Your task to perform on an android device: What's the weather going to be this weekend? Image 0: 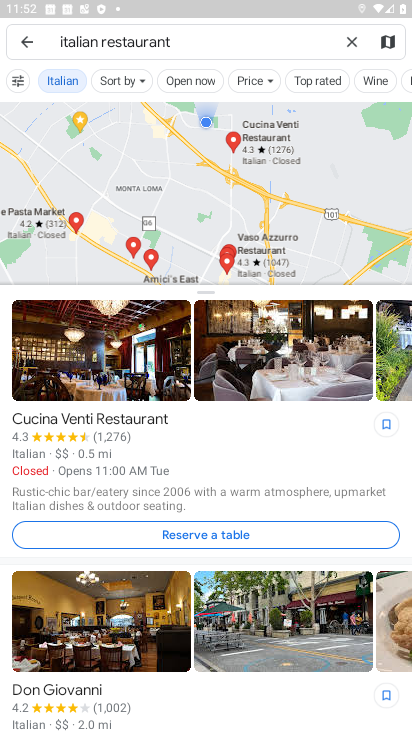
Step 0: press home button
Your task to perform on an android device: What's the weather going to be this weekend? Image 1: 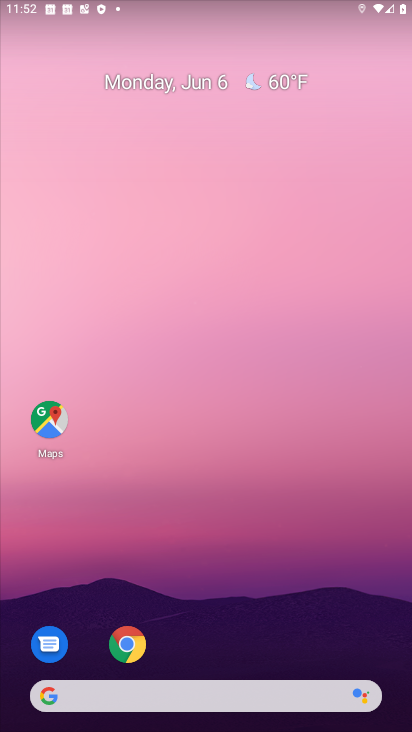
Step 1: drag from (185, 705) to (270, 27)
Your task to perform on an android device: What's the weather going to be this weekend? Image 2: 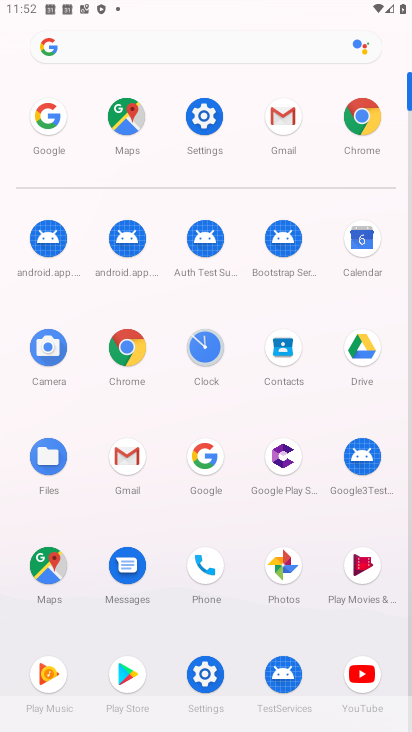
Step 2: click (210, 474)
Your task to perform on an android device: What's the weather going to be this weekend? Image 3: 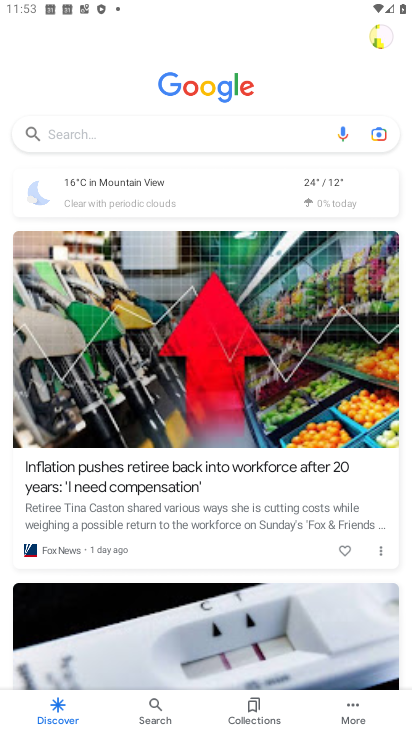
Step 3: click (214, 132)
Your task to perform on an android device: What's the weather going to be this weekend? Image 4: 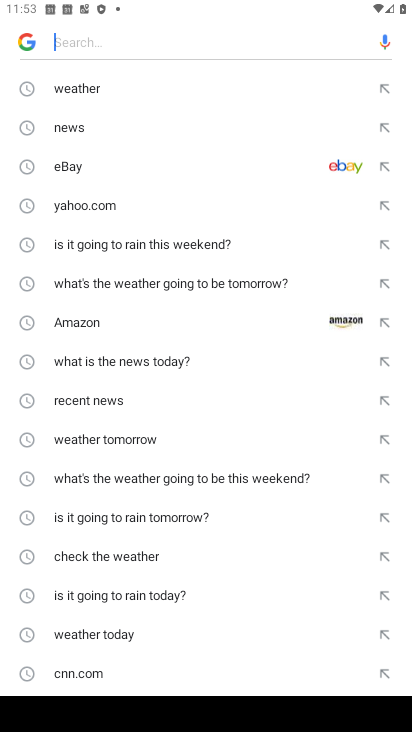
Step 4: click (154, 88)
Your task to perform on an android device: What's the weather going to be this weekend? Image 5: 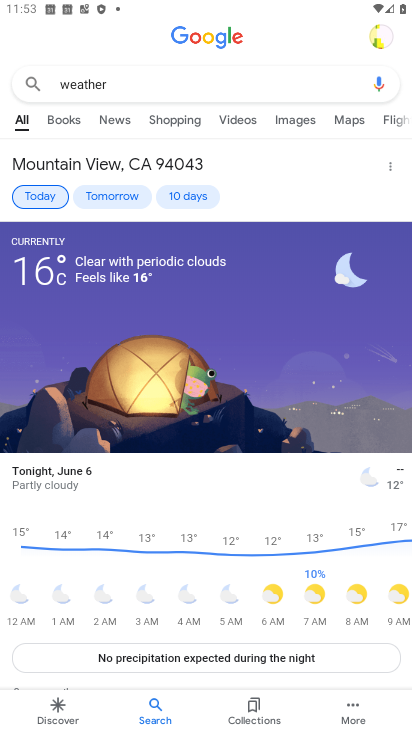
Step 5: click (196, 197)
Your task to perform on an android device: What's the weather going to be this weekend? Image 6: 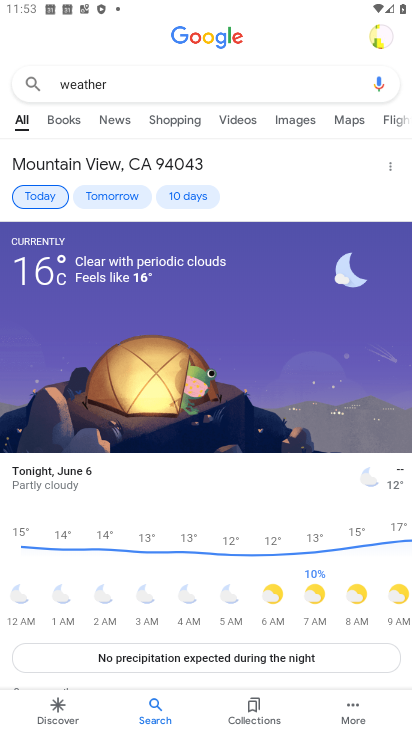
Step 6: click (201, 201)
Your task to perform on an android device: What's the weather going to be this weekend? Image 7: 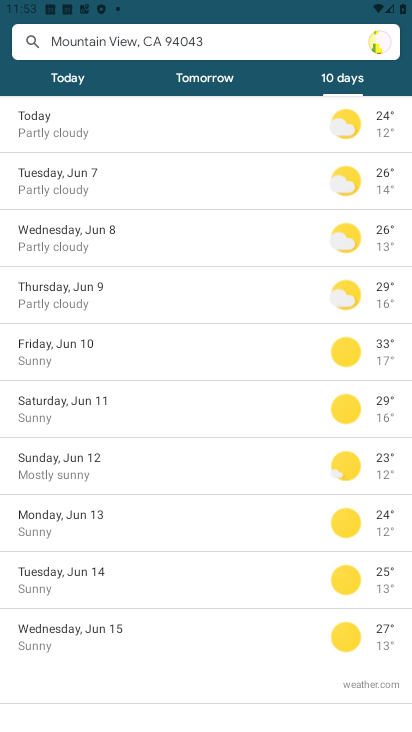
Step 7: task complete